Your task to perform on an android device: clear history in the chrome app Image 0: 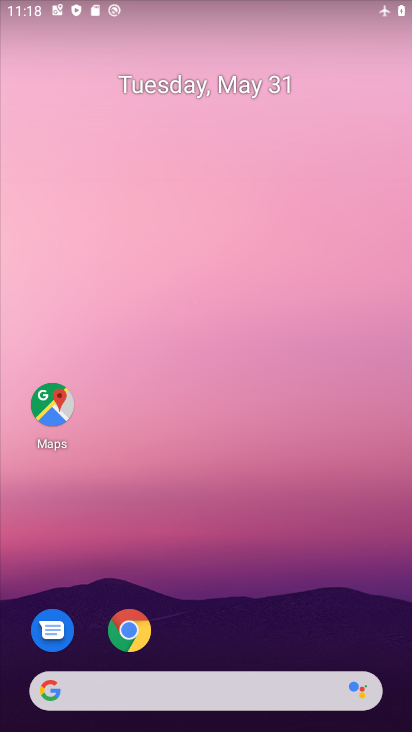
Step 0: drag from (282, 578) to (293, 55)
Your task to perform on an android device: clear history in the chrome app Image 1: 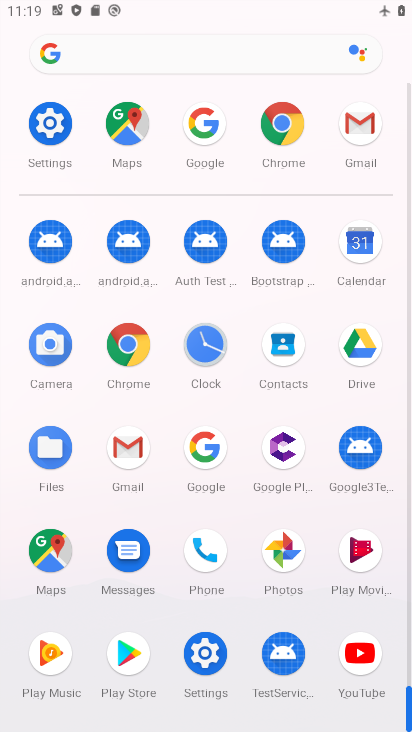
Step 1: click (134, 364)
Your task to perform on an android device: clear history in the chrome app Image 2: 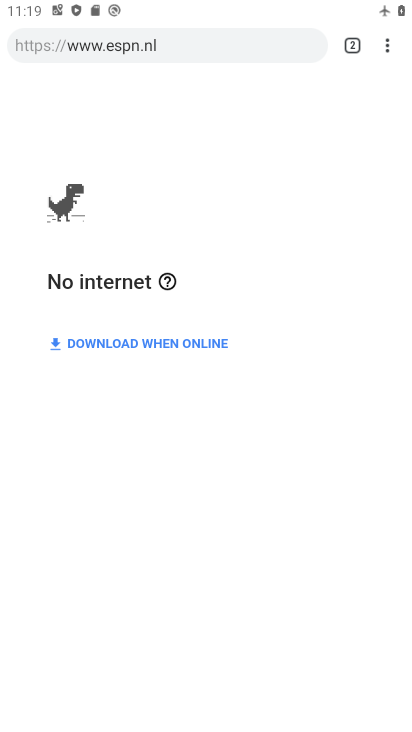
Step 2: click (385, 44)
Your task to perform on an android device: clear history in the chrome app Image 3: 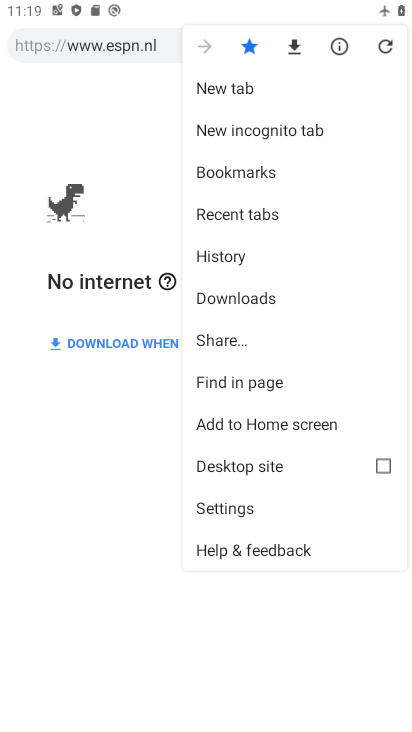
Step 3: click (243, 258)
Your task to perform on an android device: clear history in the chrome app Image 4: 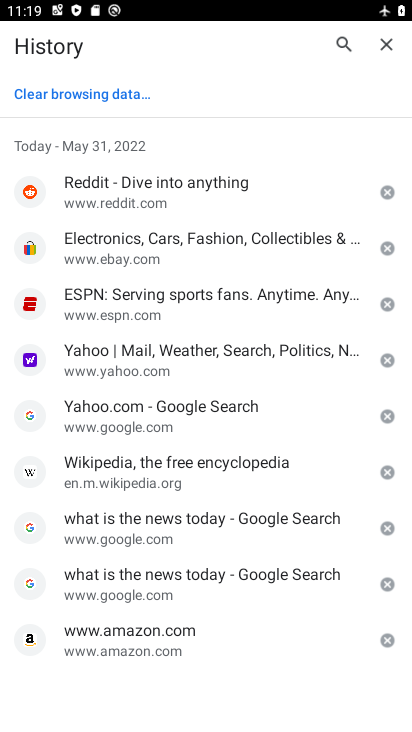
Step 4: click (103, 93)
Your task to perform on an android device: clear history in the chrome app Image 5: 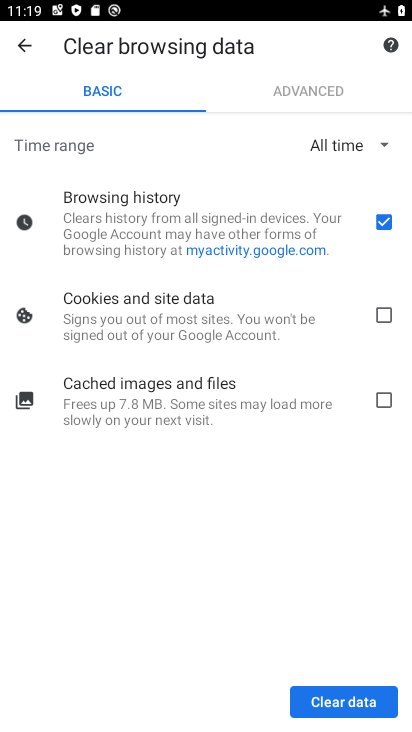
Step 5: click (372, 719)
Your task to perform on an android device: clear history in the chrome app Image 6: 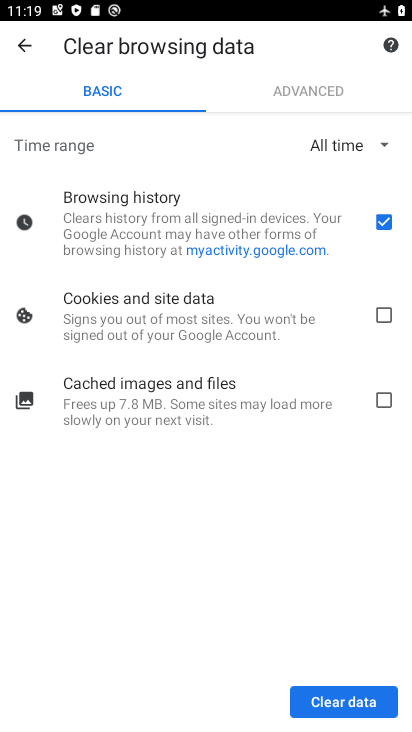
Step 6: click (363, 706)
Your task to perform on an android device: clear history in the chrome app Image 7: 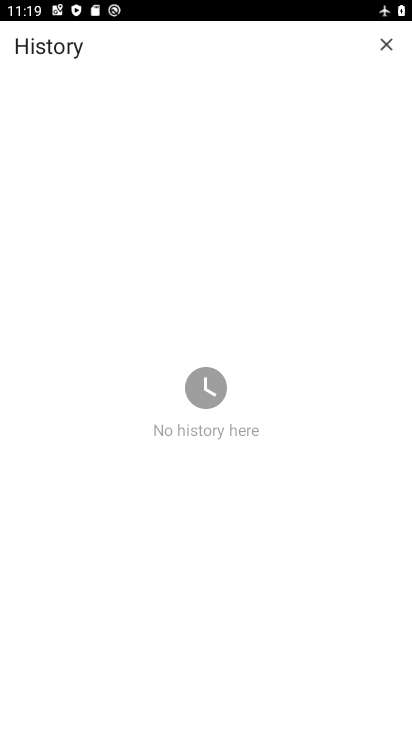
Step 7: task complete